Your task to perform on an android device: Go to network settings Image 0: 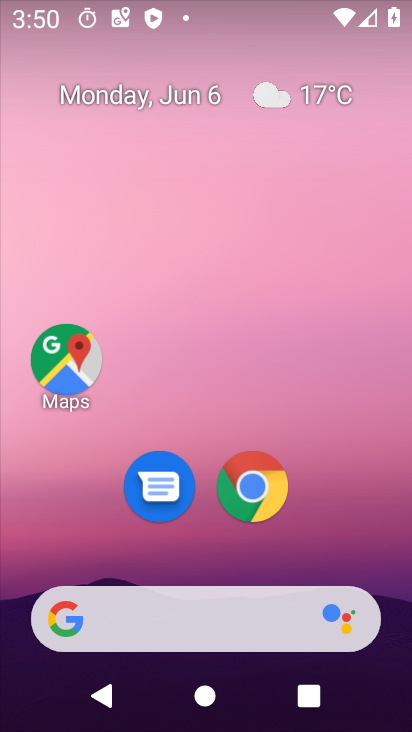
Step 0: drag from (354, 515) to (310, 135)
Your task to perform on an android device: Go to network settings Image 1: 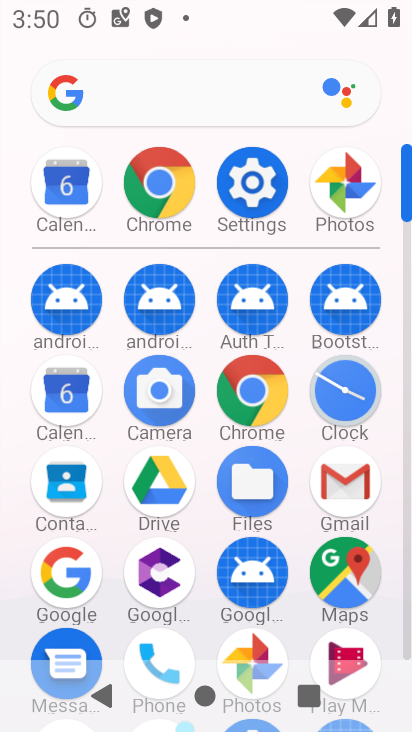
Step 1: click (233, 183)
Your task to perform on an android device: Go to network settings Image 2: 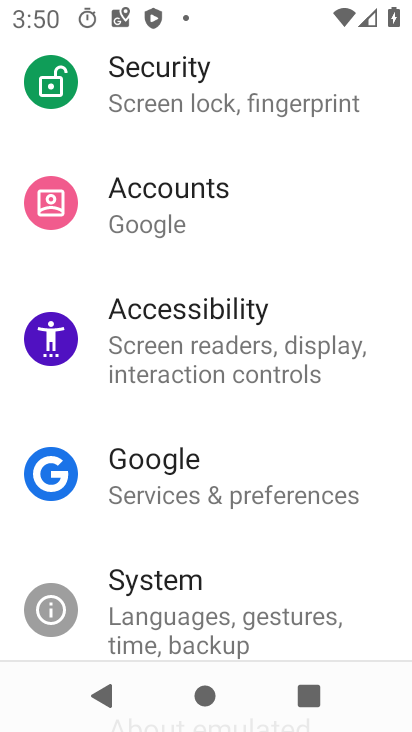
Step 2: drag from (225, 201) to (248, 636)
Your task to perform on an android device: Go to network settings Image 3: 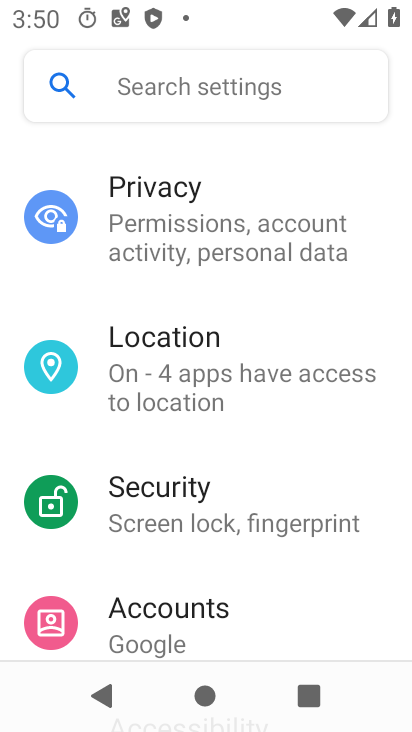
Step 3: drag from (226, 232) to (239, 550)
Your task to perform on an android device: Go to network settings Image 4: 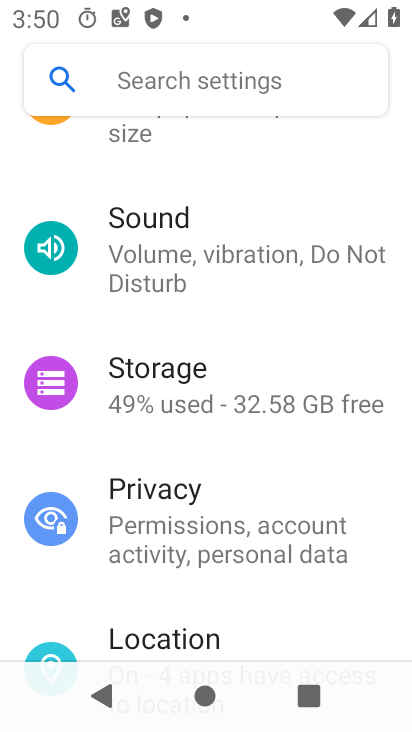
Step 4: drag from (194, 181) to (194, 662)
Your task to perform on an android device: Go to network settings Image 5: 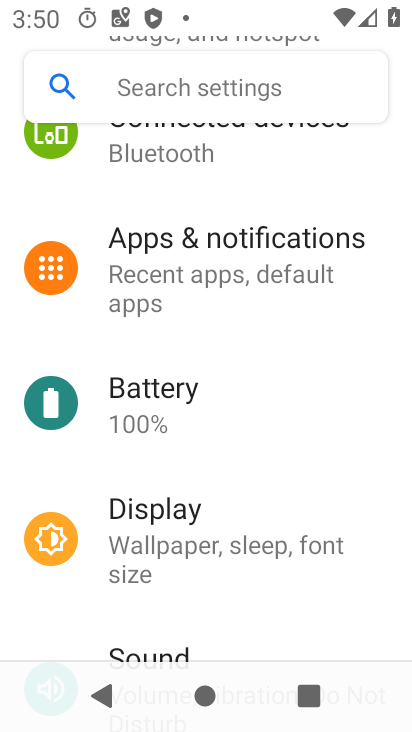
Step 5: drag from (241, 275) to (304, 608)
Your task to perform on an android device: Go to network settings Image 6: 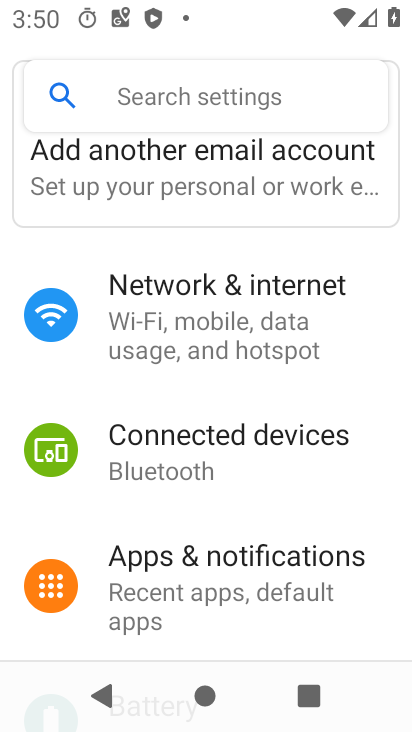
Step 6: click (244, 284)
Your task to perform on an android device: Go to network settings Image 7: 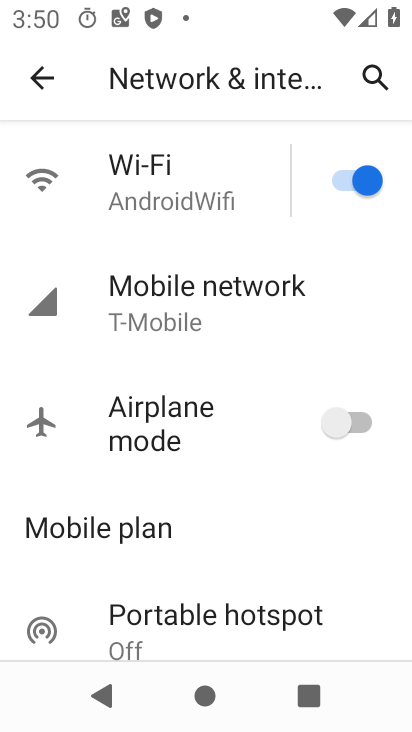
Step 7: task complete